Your task to perform on an android device: add a contact Image 0: 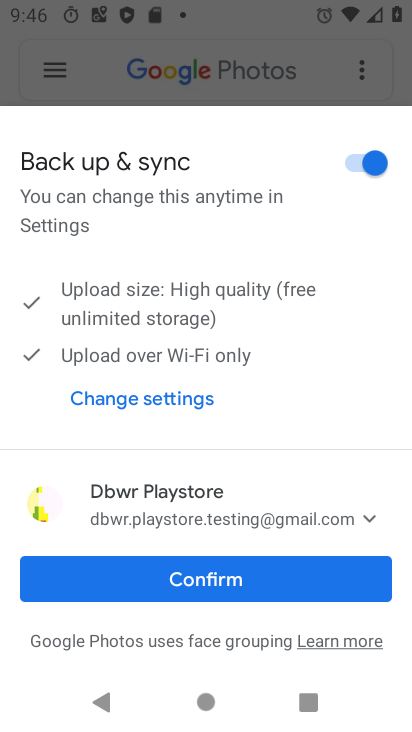
Step 0: press home button
Your task to perform on an android device: add a contact Image 1: 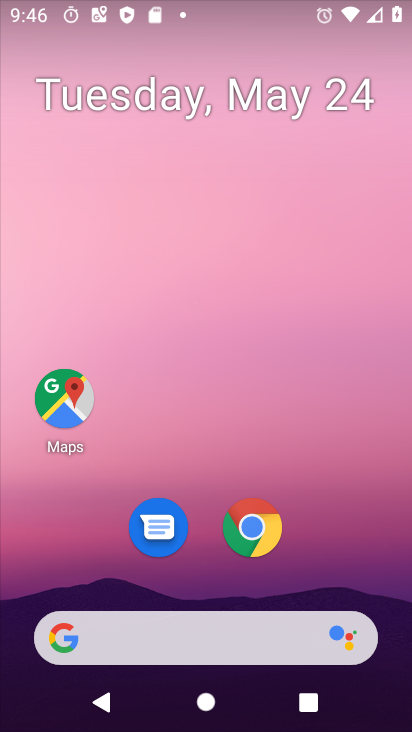
Step 1: drag from (390, 654) to (405, 237)
Your task to perform on an android device: add a contact Image 2: 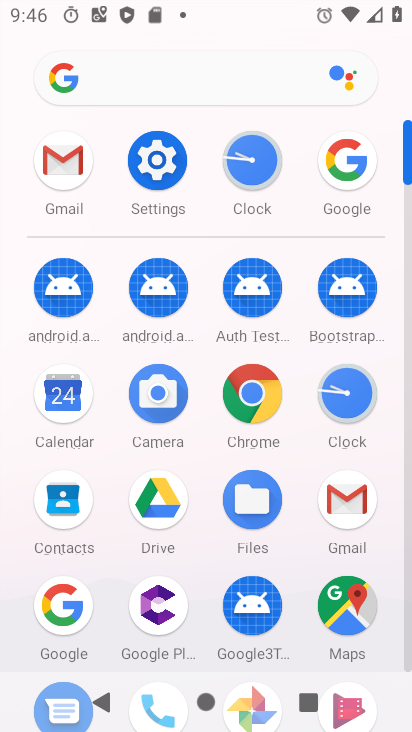
Step 2: click (69, 506)
Your task to perform on an android device: add a contact Image 3: 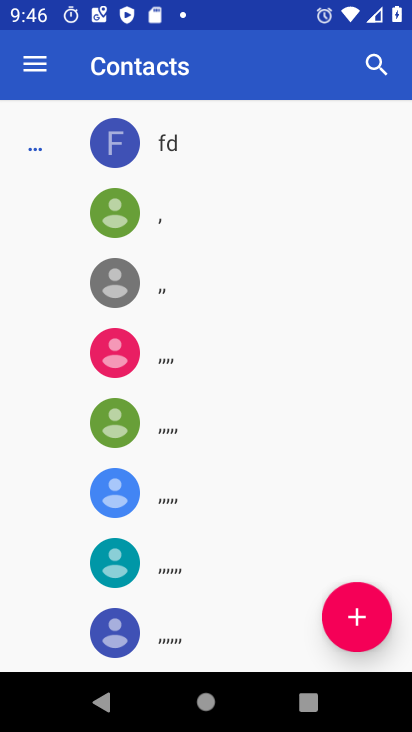
Step 3: click (352, 615)
Your task to perform on an android device: add a contact Image 4: 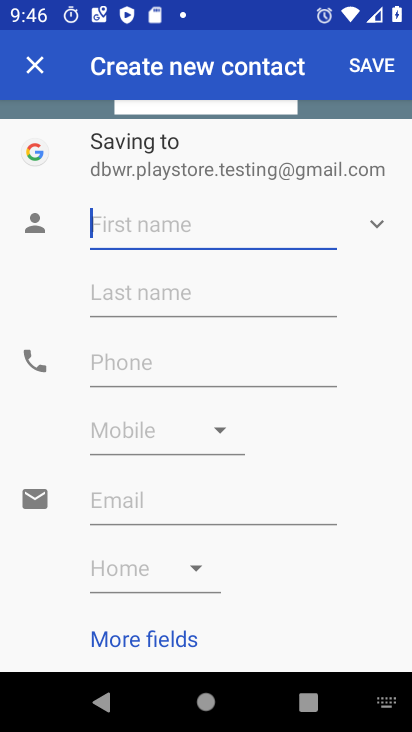
Step 4: type "ghghgh"
Your task to perform on an android device: add a contact Image 5: 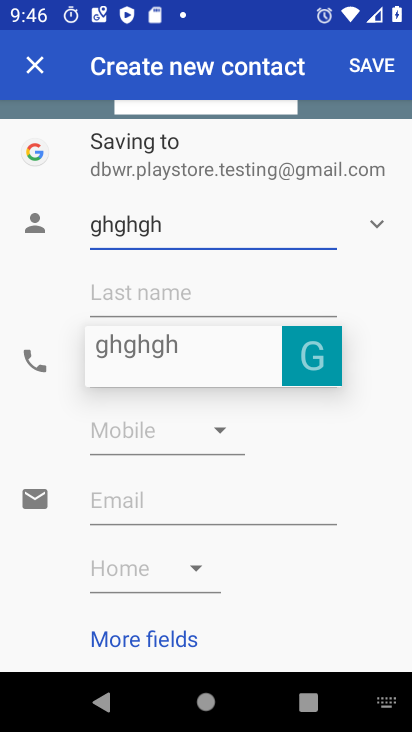
Step 5: click (145, 302)
Your task to perform on an android device: add a contact Image 6: 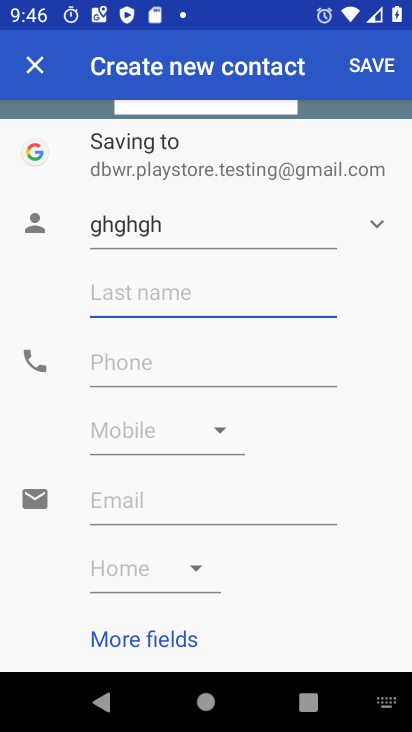
Step 6: type "hhjhhj"
Your task to perform on an android device: add a contact Image 7: 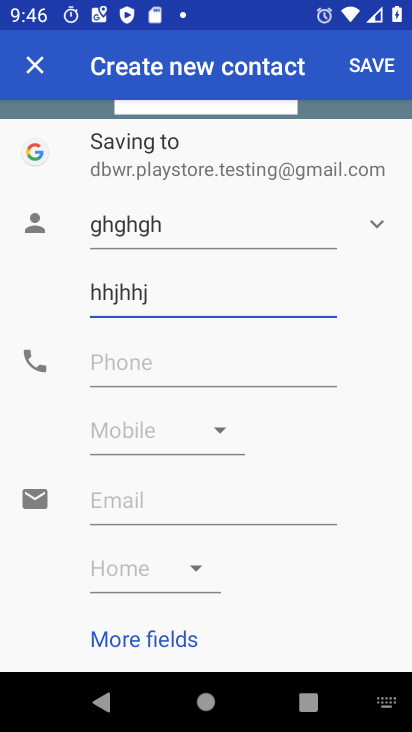
Step 7: click (122, 361)
Your task to perform on an android device: add a contact Image 8: 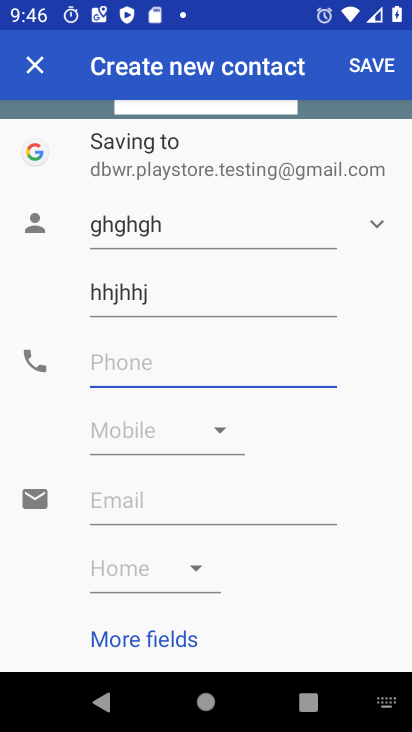
Step 8: type "345678654"
Your task to perform on an android device: add a contact Image 9: 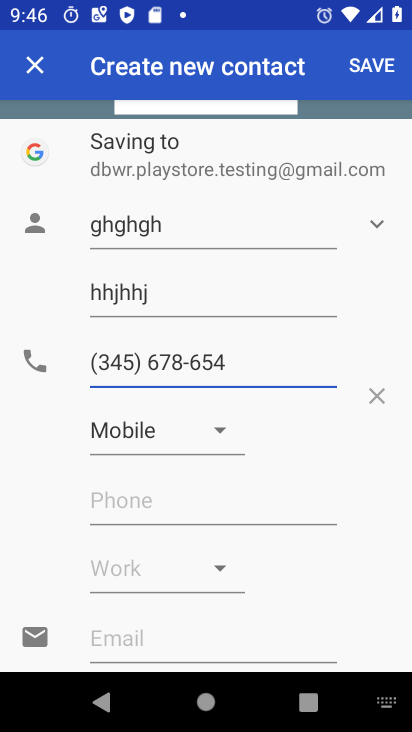
Step 9: click (372, 63)
Your task to perform on an android device: add a contact Image 10: 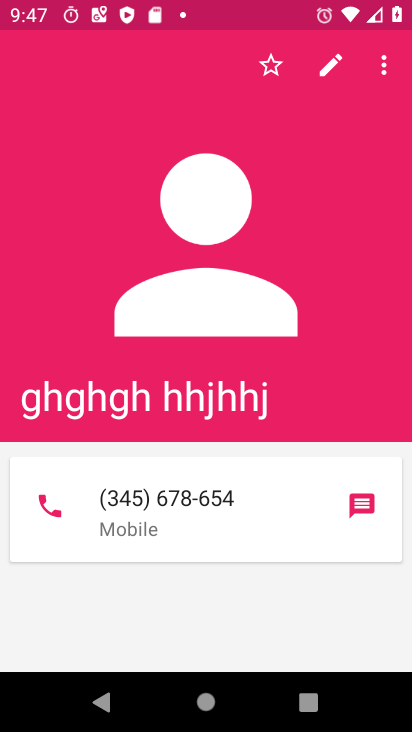
Step 10: task complete